Your task to perform on an android device: turn off translation in the chrome app Image 0: 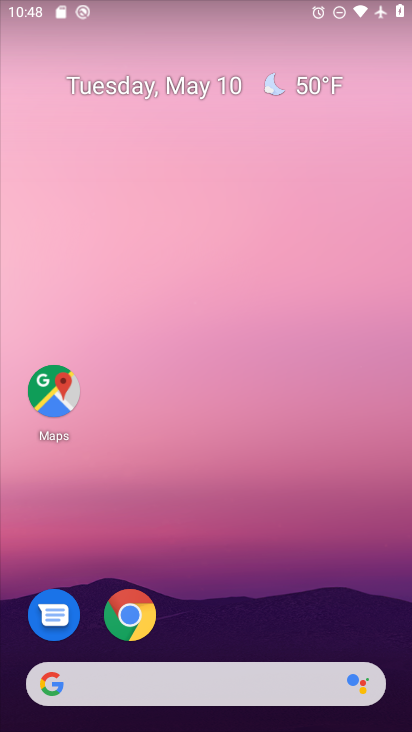
Step 0: click (134, 614)
Your task to perform on an android device: turn off translation in the chrome app Image 1: 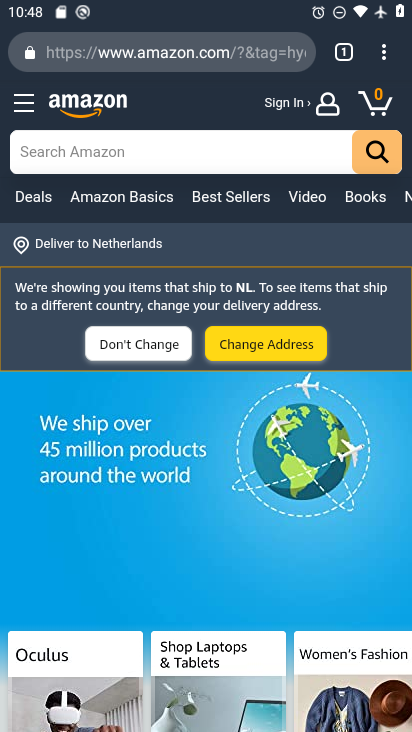
Step 1: click (381, 60)
Your task to perform on an android device: turn off translation in the chrome app Image 2: 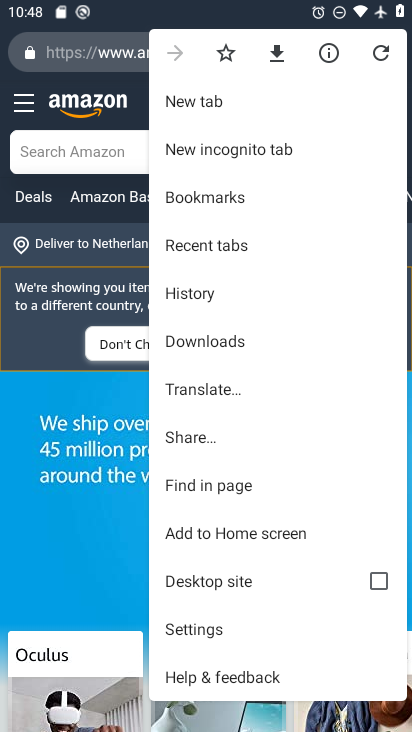
Step 2: click (197, 621)
Your task to perform on an android device: turn off translation in the chrome app Image 3: 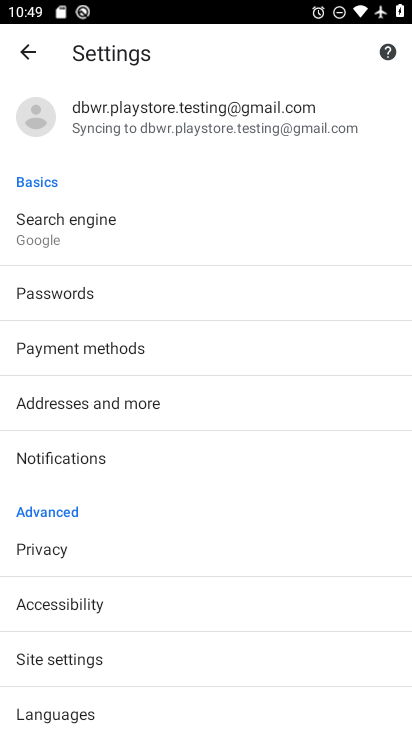
Step 3: click (50, 709)
Your task to perform on an android device: turn off translation in the chrome app Image 4: 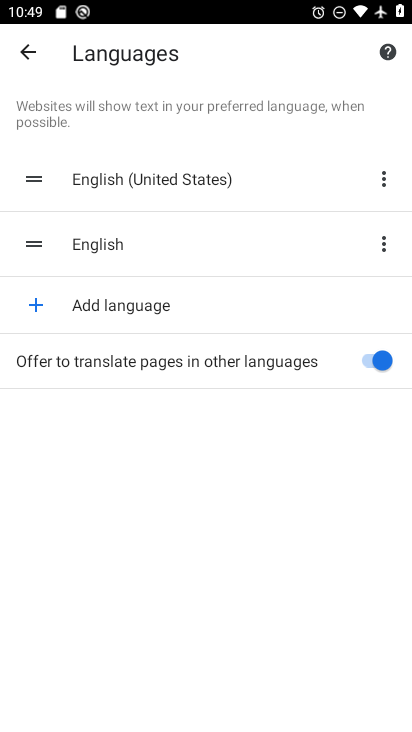
Step 4: click (363, 358)
Your task to perform on an android device: turn off translation in the chrome app Image 5: 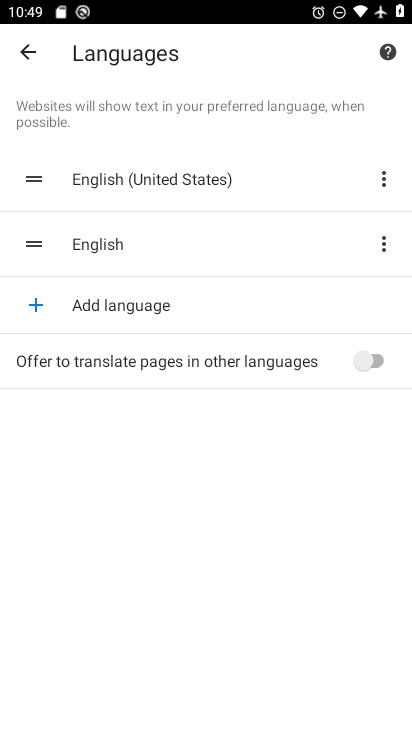
Step 5: task complete